Your task to perform on an android device: Go to internet settings Image 0: 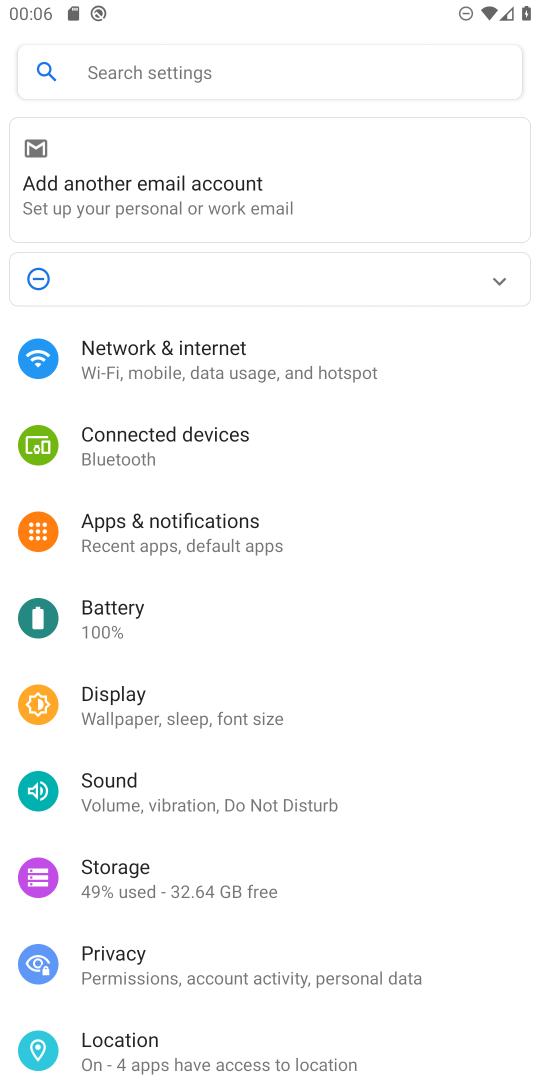
Step 0: press home button
Your task to perform on an android device: Go to internet settings Image 1: 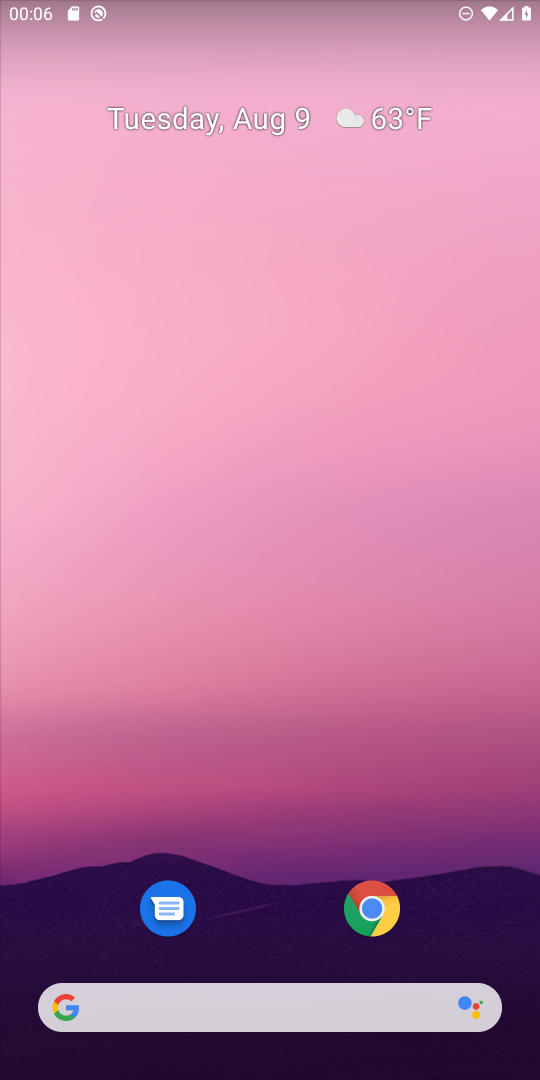
Step 1: drag from (261, 915) to (267, 135)
Your task to perform on an android device: Go to internet settings Image 2: 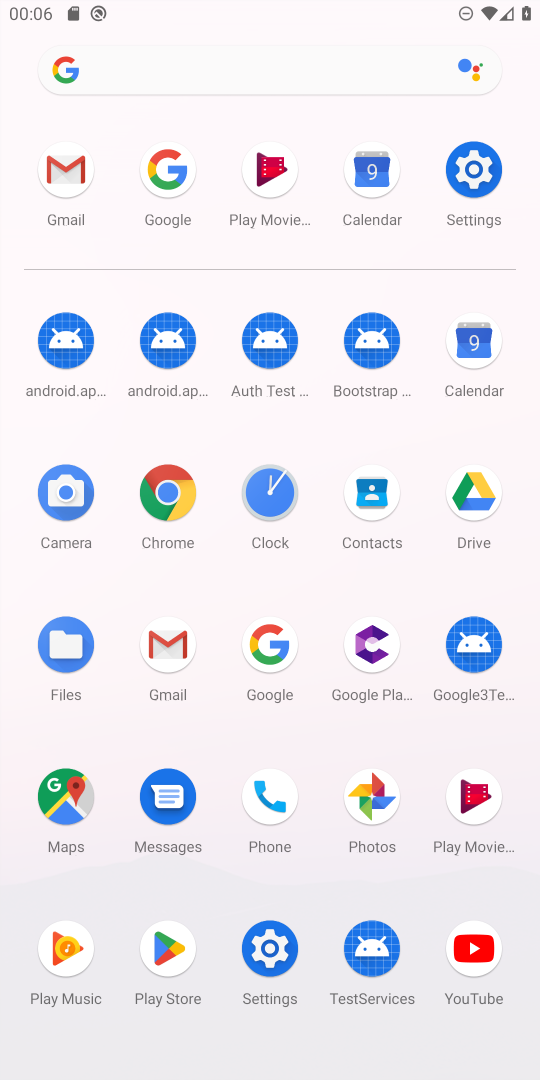
Step 2: click (472, 177)
Your task to perform on an android device: Go to internet settings Image 3: 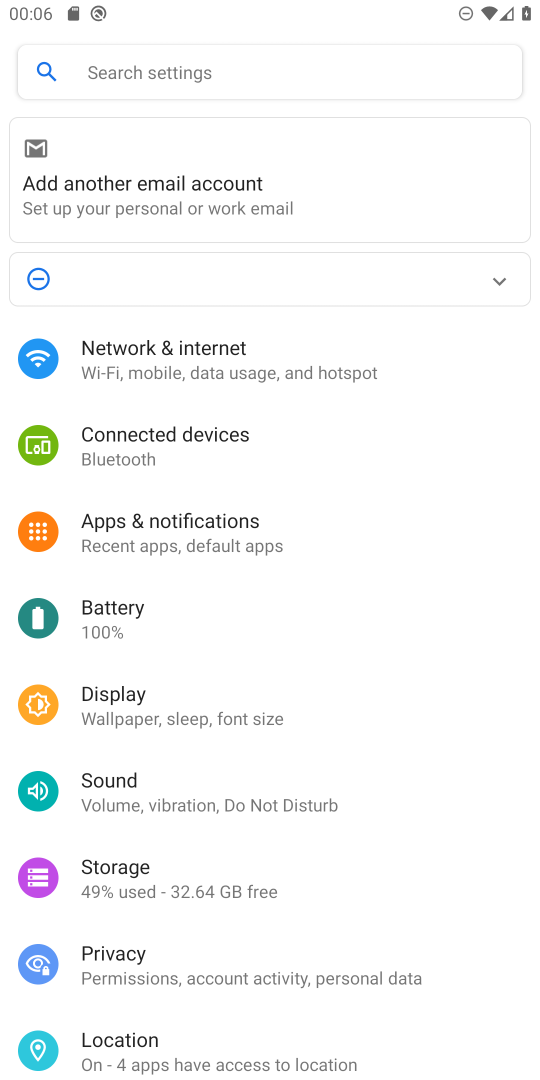
Step 3: click (362, 375)
Your task to perform on an android device: Go to internet settings Image 4: 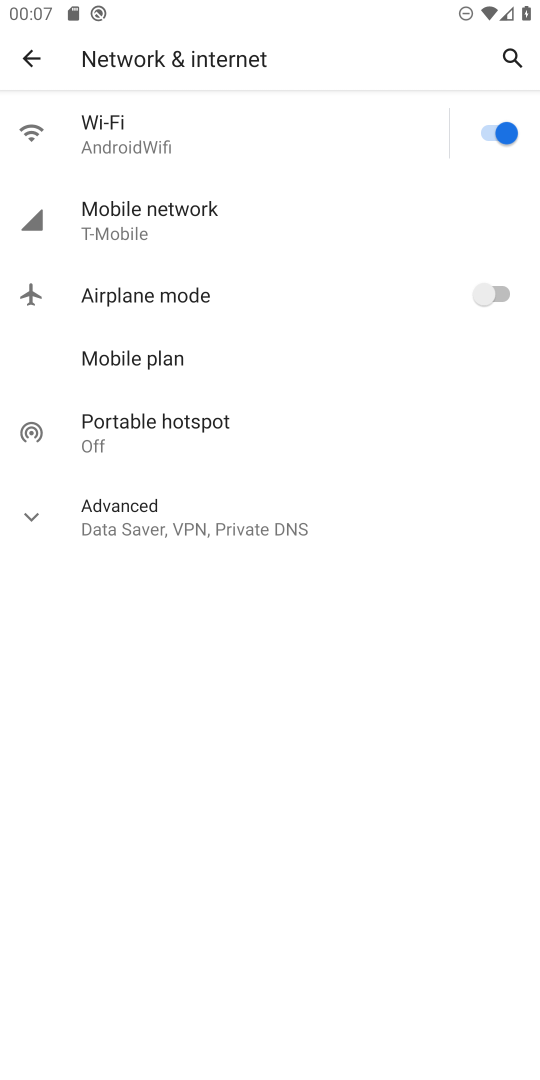
Step 4: task complete